Your task to perform on an android device: toggle wifi Image 0: 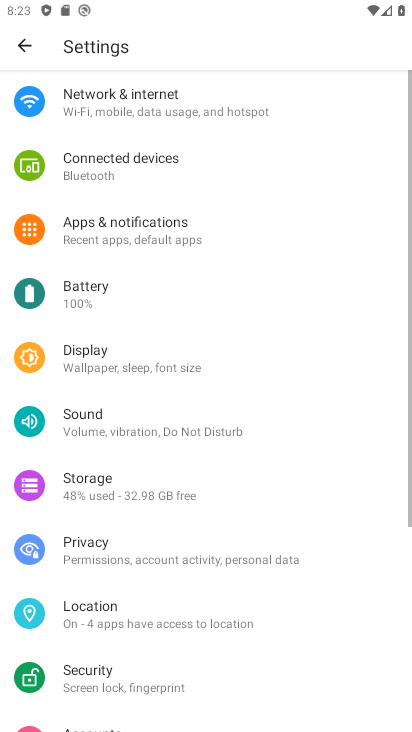
Step 0: press home button
Your task to perform on an android device: toggle wifi Image 1: 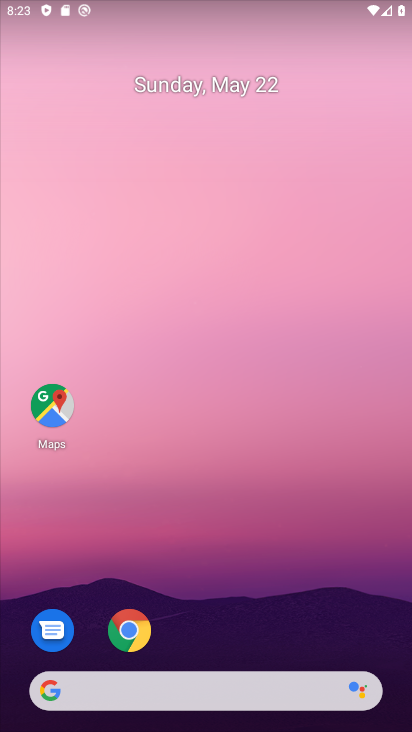
Step 1: drag from (222, 503) to (404, 0)
Your task to perform on an android device: toggle wifi Image 2: 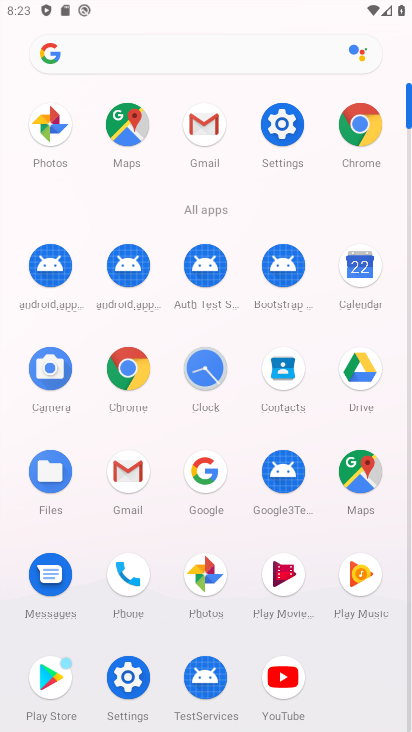
Step 2: click (291, 130)
Your task to perform on an android device: toggle wifi Image 3: 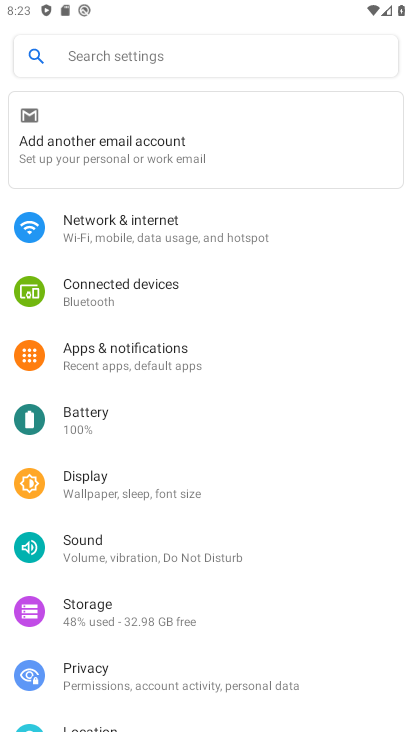
Step 3: click (148, 232)
Your task to perform on an android device: toggle wifi Image 4: 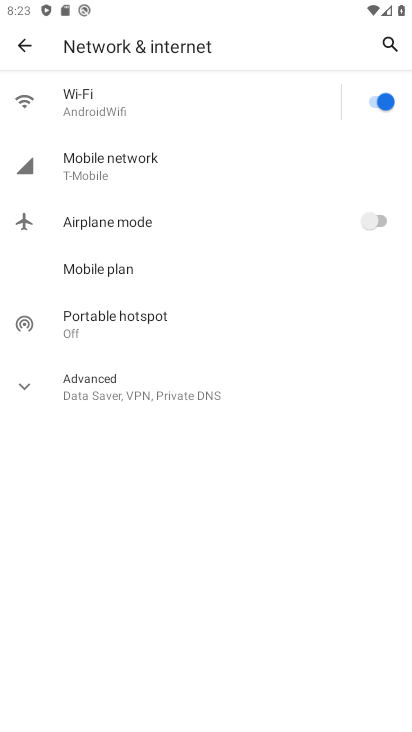
Step 4: click (372, 102)
Your task to perform on an android device: toggle wifi Image 5: 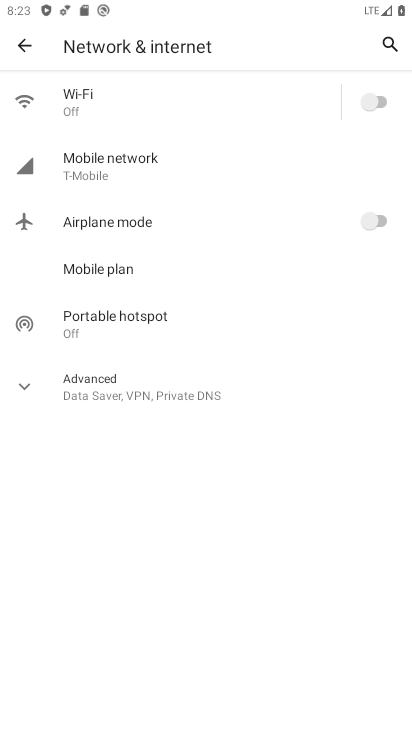
Step 5: task complete